Your task to perform on an android device: toggle wifi Image 0: 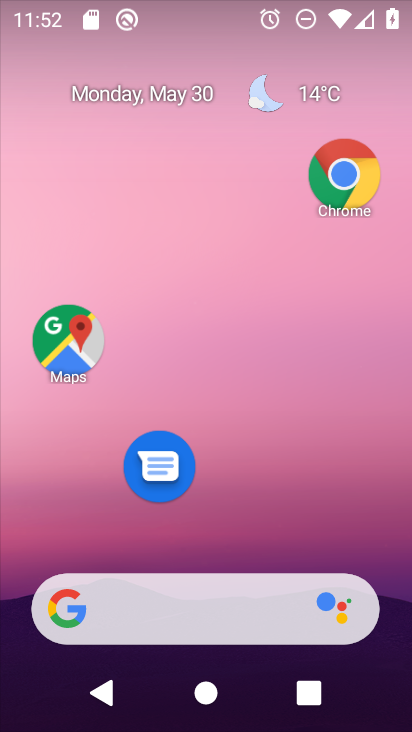
Step 0: drag from (279, 471) to (243, 130)
Your task to perform on an android device: toggle wifi Image 1: 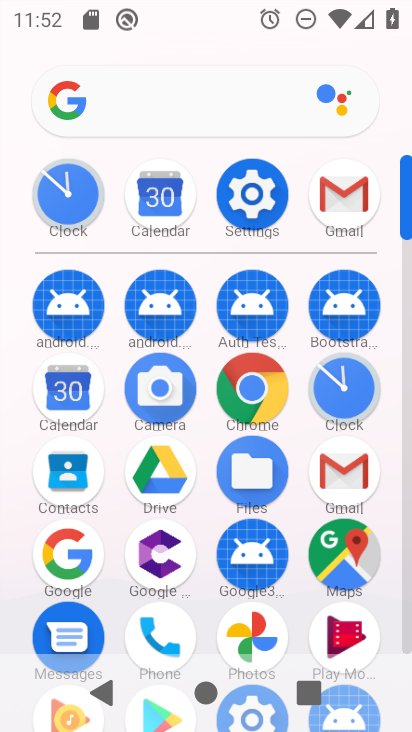
Step 1: click (238, 199)
Your task to perform on an android device: toggle wifi Image 2: 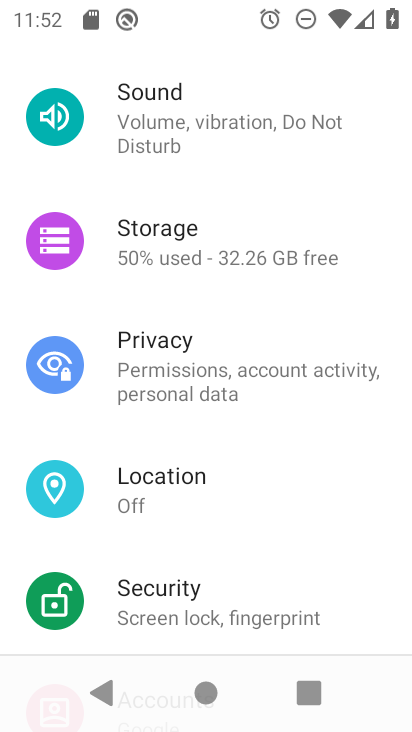
Step 2: drag from (230, 163) to (277, 420)
Your task to perform on an android device: toggle wifi Image 3: 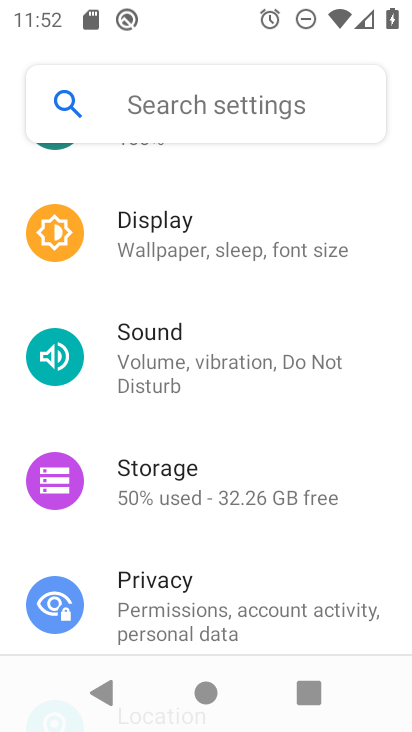
Step 3: drag from (257, 252) to (306, 520)
Your task to perform on an android device: toggle wifi Image 4: 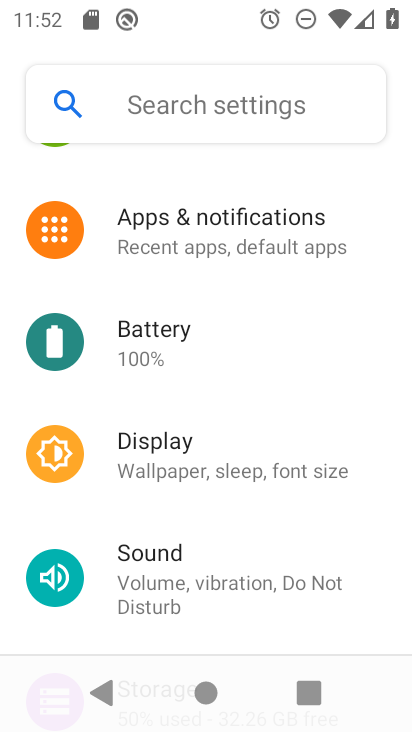
Step 4: drag from (279, 232) to (297, 479)
Your task to perform on an android device: toggle wifi Image 5: 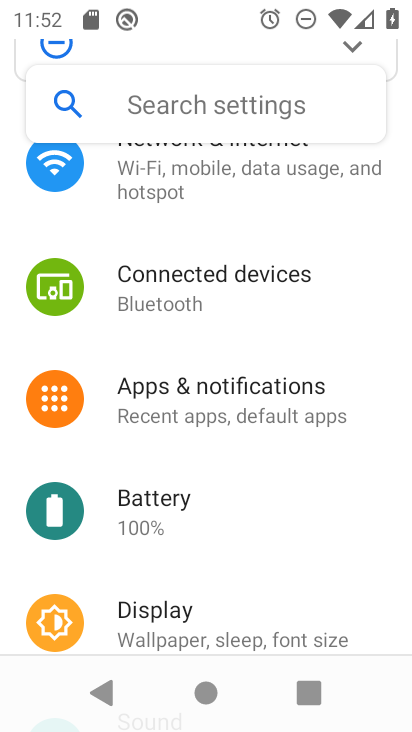
Step 5: click (280, 198)
Your task to perform on an android device: toggle wifi Image 6: 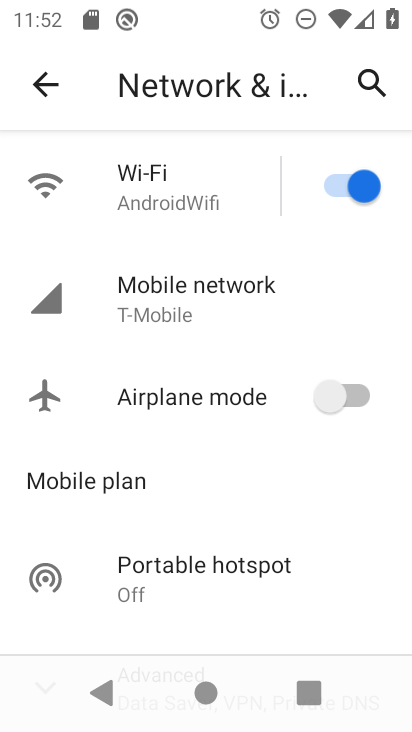
Step 6: click (333, 182)
Your task to perform on an android device: toggle wifi Image 7: 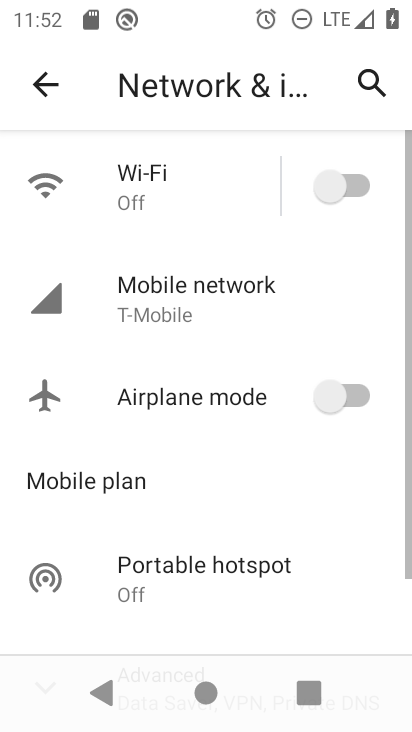
Step 7: task complete